Your task to perform on an android device: What is the recent news? Image 0: 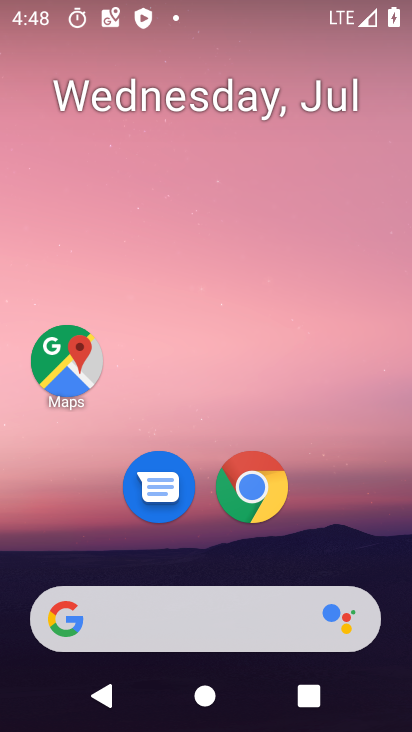
Step 0: drag from (217, 553) to (217, 53)
Your task to perform on an android device: What is the recent news? Image 1: 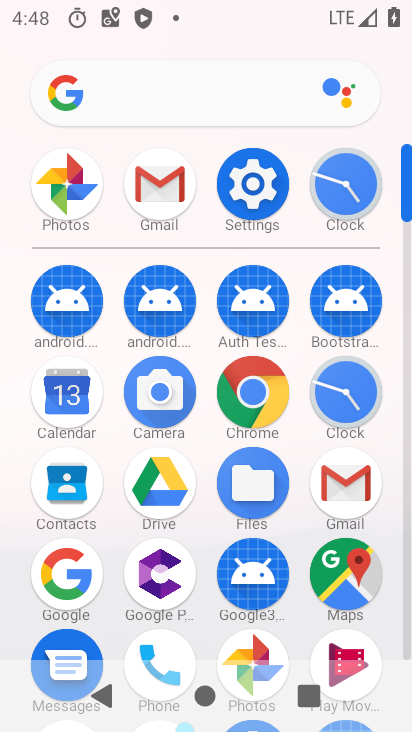
Step 1: click (162, 108)
Your task to perform on an android device: What is the recent news? Image 2: 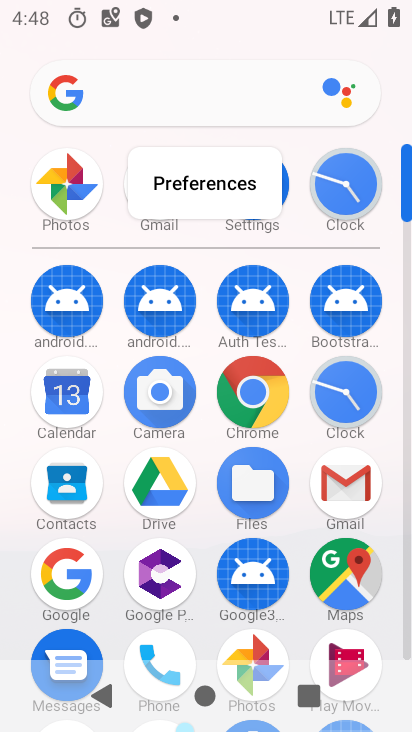
Step 2: click (155, 103)
Your task to perform on an android device: What is the recent news? Image 3: 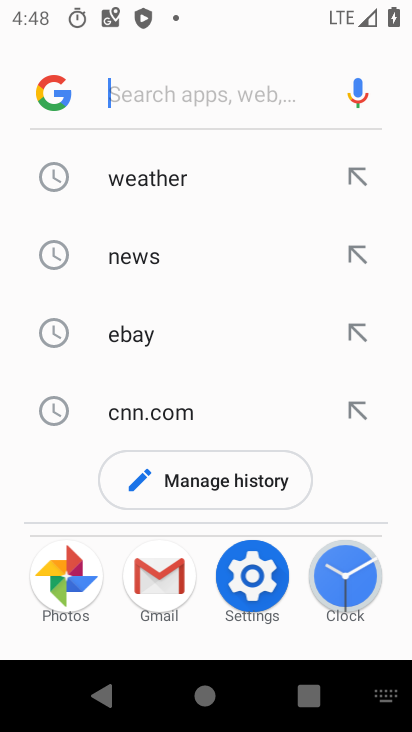
Step 3: click (151, 90)
Your task to perform on an android device: What is the recent news? Image 4: 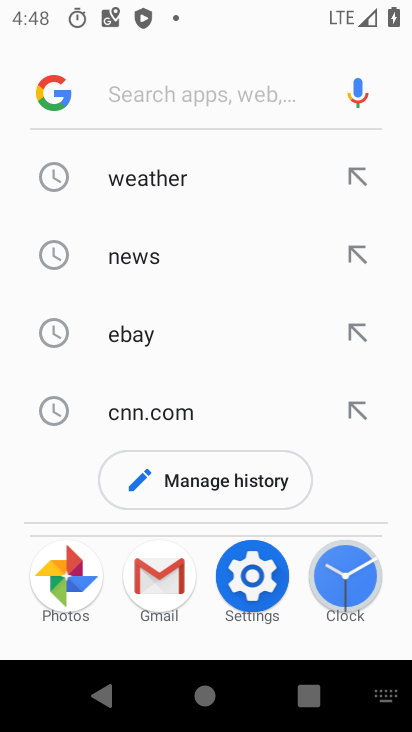
Step 4: type "recent news"
Your task to perform on an android device: What is the recent news? Image 5: 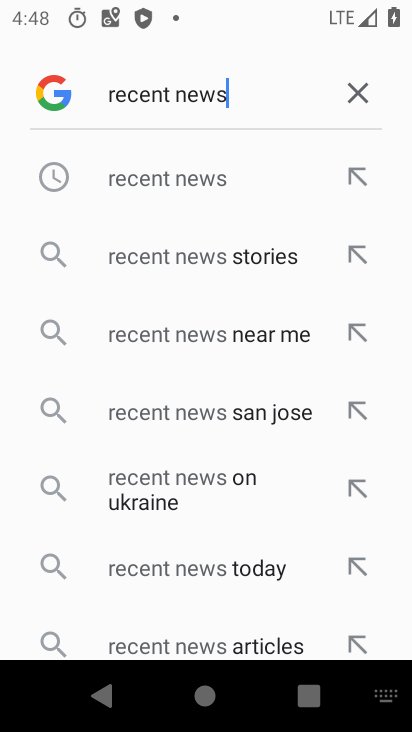
Step 5: click (194, 173)
Your task to perform on an android device: What is the recent news? Image 6: 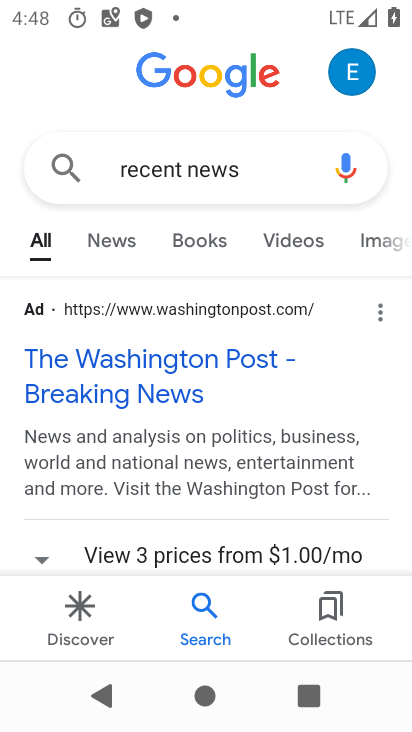
Step 6: task complete